Your task to perform on an android device: Go to eBay Image 0: 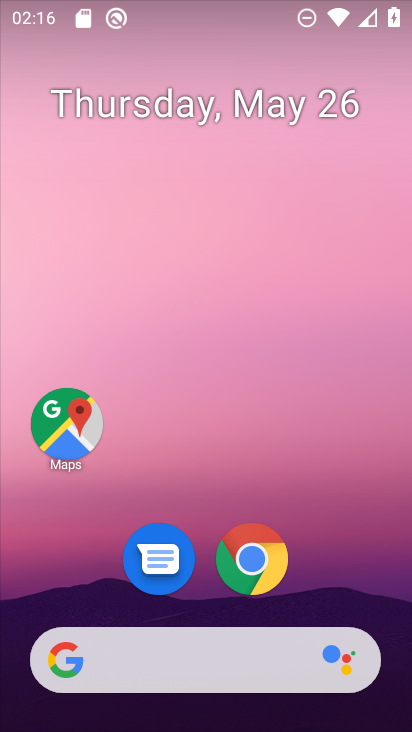
Step 0: press home button
Your task to perform on an android device: Go to eBay Image 1: 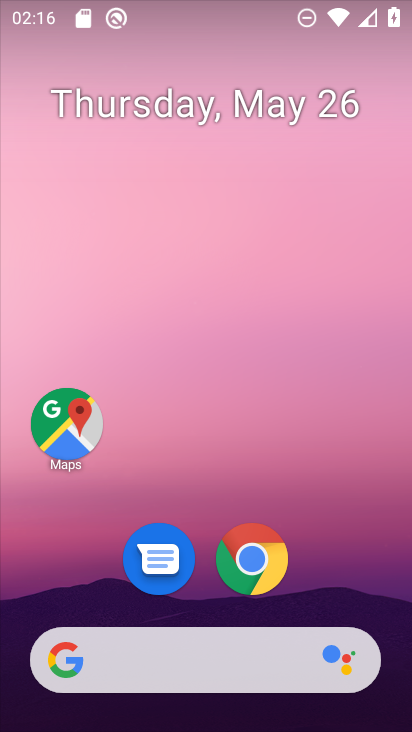
Step 1: click (248, 571)
Your task to perform on an android device: Go to eBay Image 2: 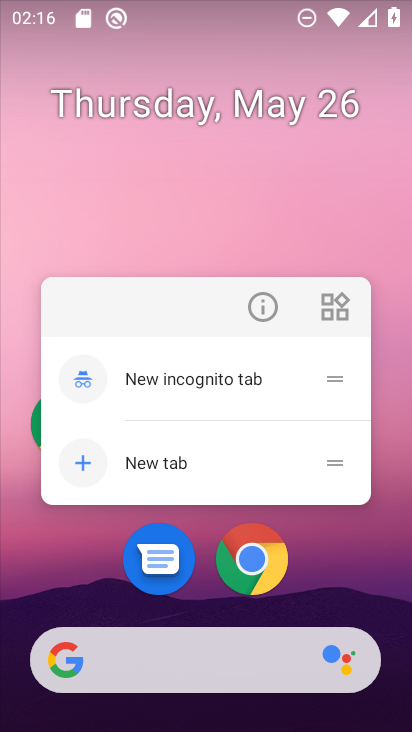
Step 2: click (278, 568)
Your task to perform on an android device: Go to eBay Image 3: 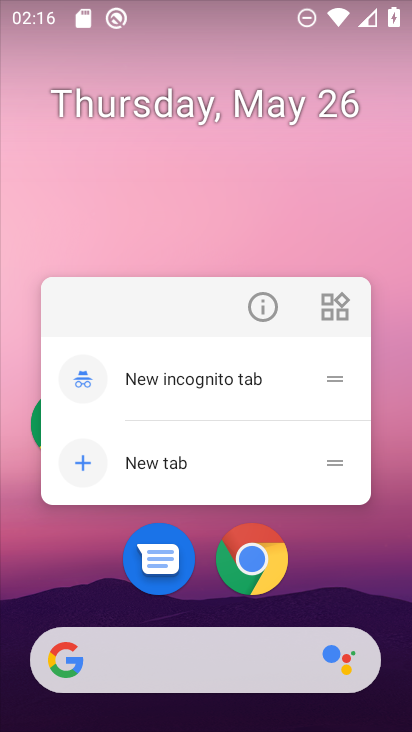
Step 3: click (260, 567)
Your task to perform on an android device: Go to eBay Image 4: 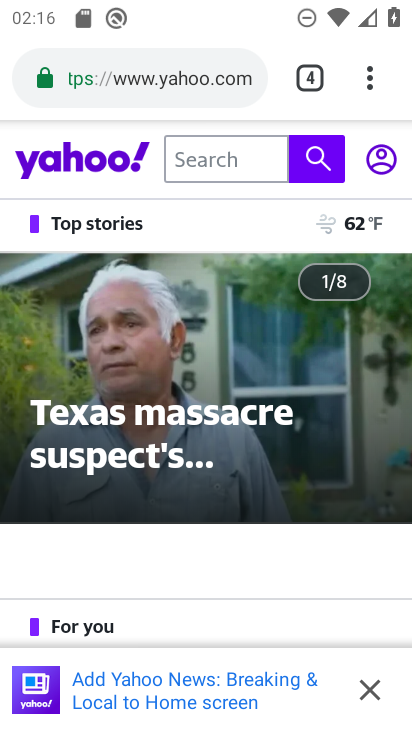
Step 4: drag from (375, 72) to (197, 157)
Your task to perform on an android device: Go to eBay Image 5: 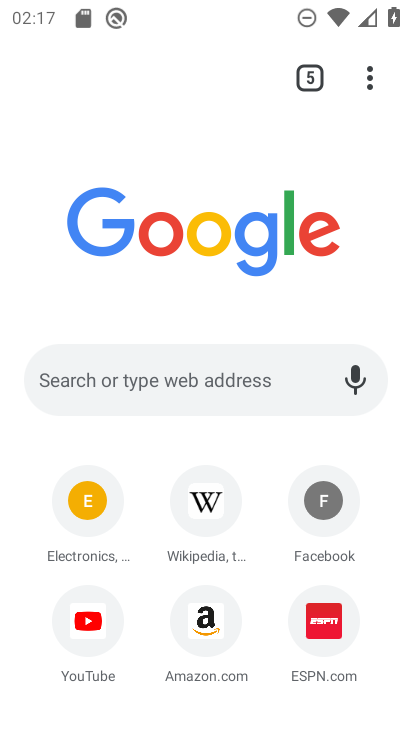
Step 5: click (89, 507)
Your task to perform on an android device: Go to eBay Image 6: 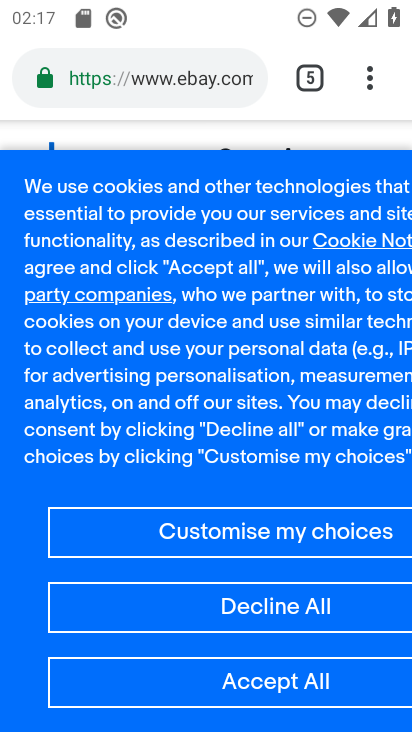
Step 6: task complete